Your task to perform on an android device: check storage Image 0: 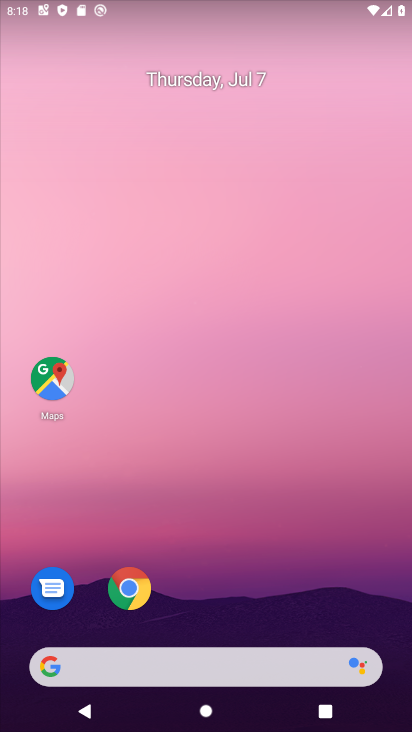
Step 0: click (368, 444)
Your task to perform on an android device: check storage Image 1: 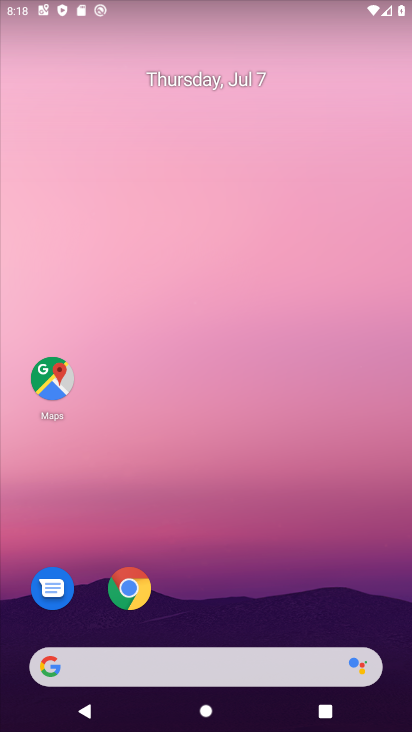
Step 1: drag from (170, 658) to (304, 111)
Your task to perform on an android device: check storage Image 2: 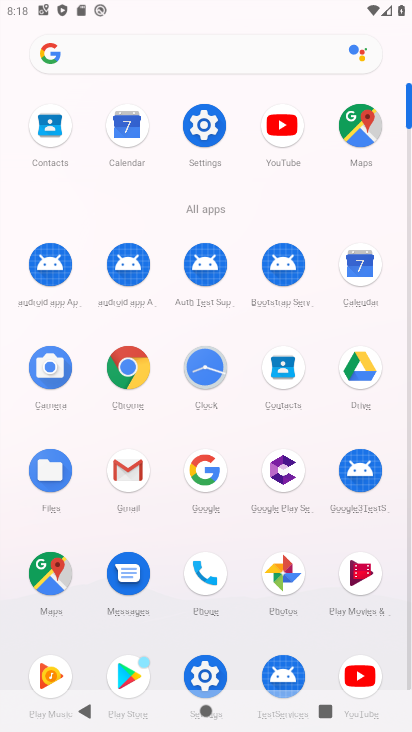
Step 2: click (194, 131)
Your task to perform on an android device: check storage Image 3: 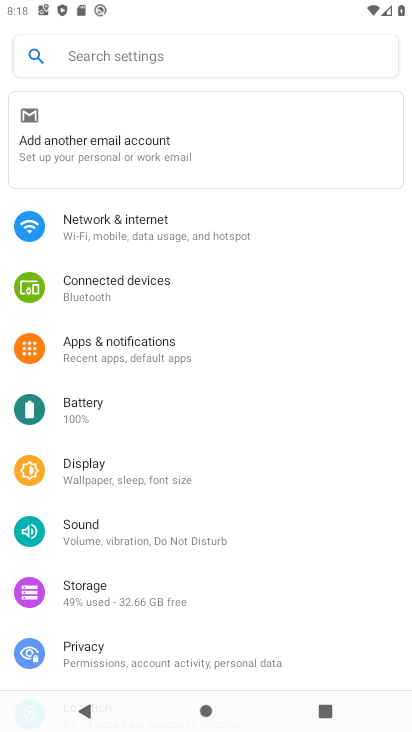
Step 3: click (95, 587)
Your task to perform on an android device: check storage Image 4: 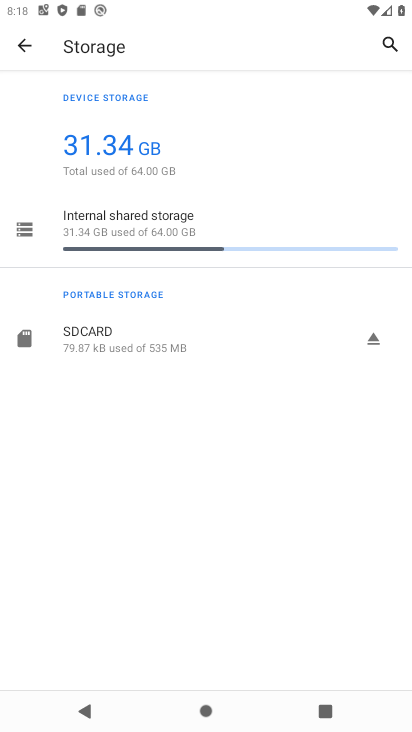
Step 4: task complete